Your task to perform on an android device: turn on the 12-hour format for clock Image 0: 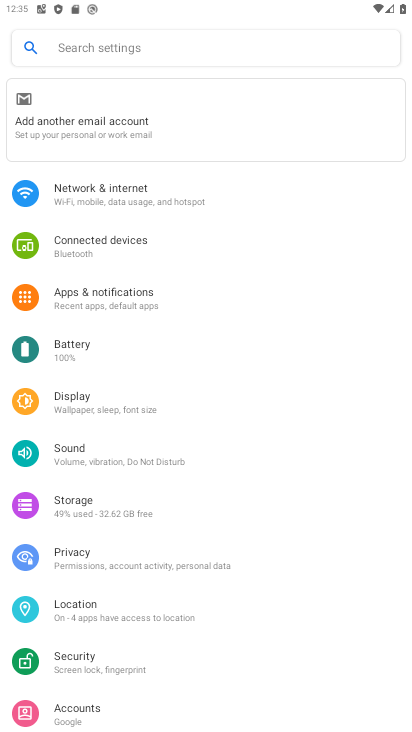
Step 0: press home button
Your task to perform on an android device: turn on the 12-hour format for clock Image 1: 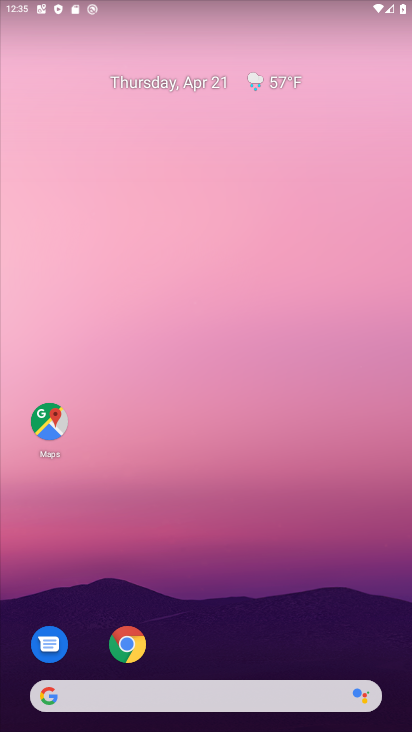
Step 1: drag from (215, 665) to (139, 0)
Your task to perform on an android device: turn on the 12-hour format for clock Image 2: 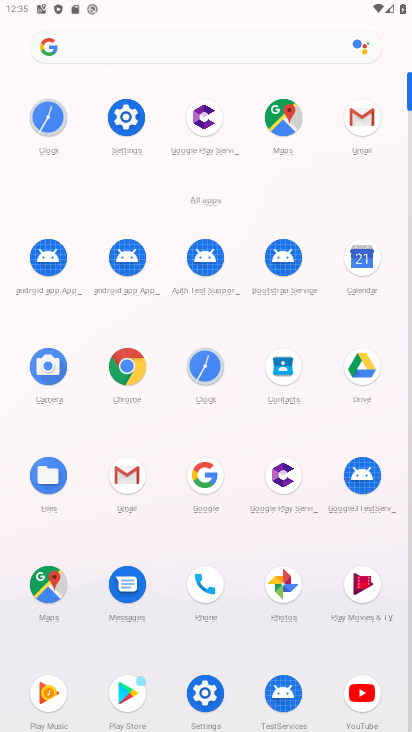
Step 2: click (201, 368)
Your task to perform on an android device: turn on the 12-hour format for clock Image 3: 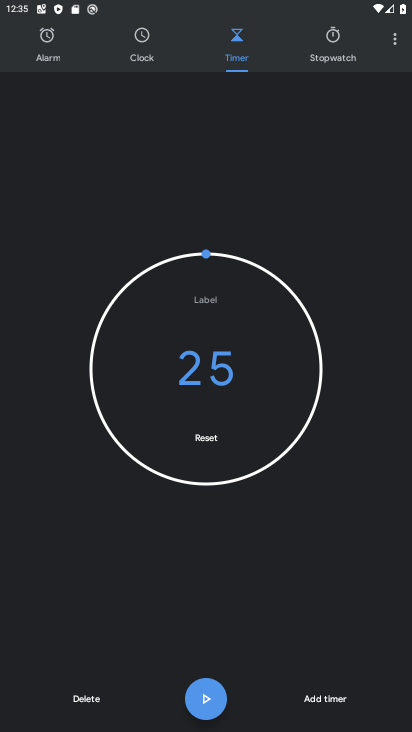
Step 3: click (390, 50)
Your task to perform on an android device: turn on the 12-hour format for clock Image 4: 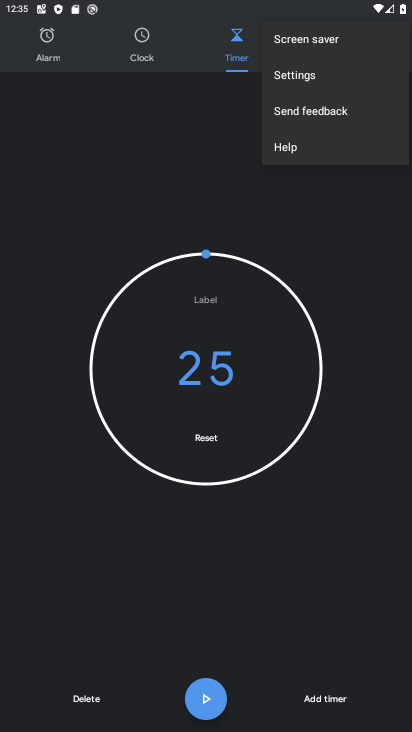
Step 4: click (315, 87)
Your task to perform on an android device: turn on the 12-hour format for clock Image 5: 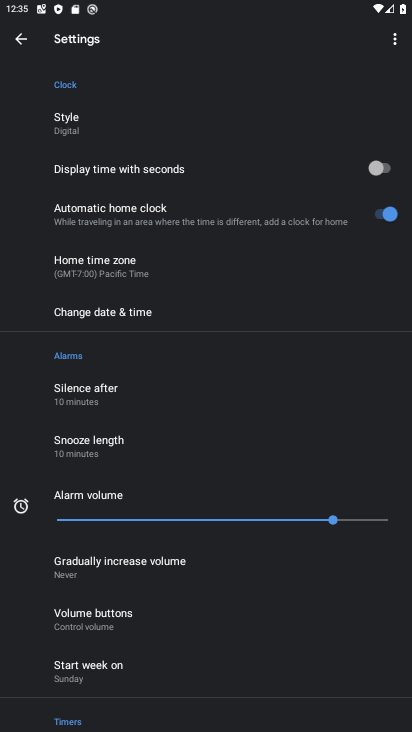
Step 5: click (124, 326)
Your task to perform on an android device: turn on the 12-hour format for clock Image 6: 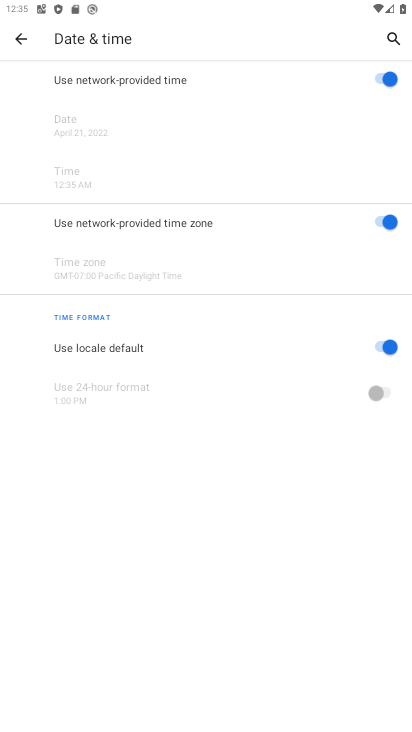
Step 6: task complete